Your task to perform on an android device: turn on location history Image 0: 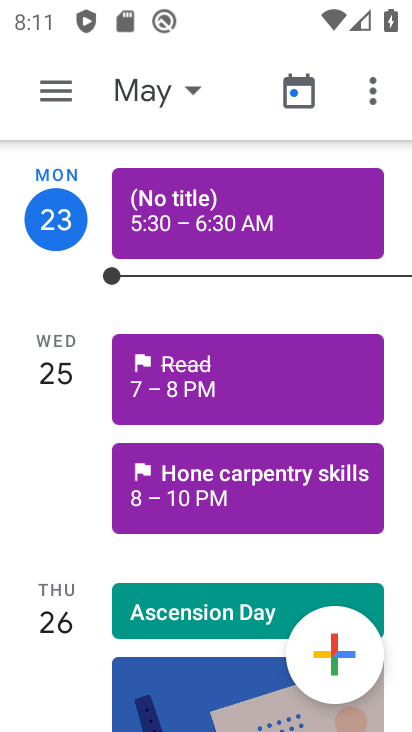
Step 0: press home button
Your task to perform on an android device: turn on location history Image 1: 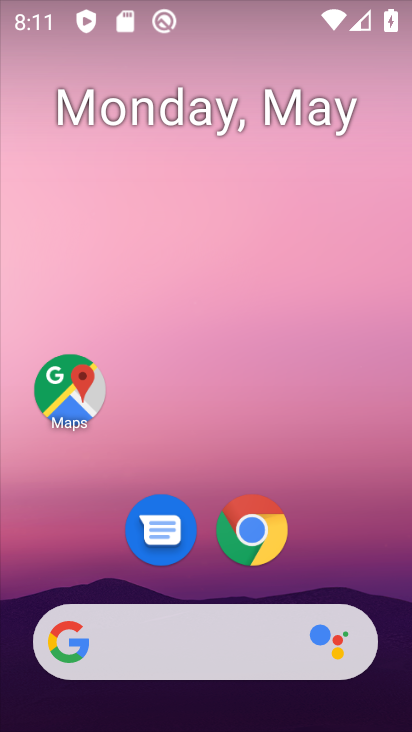
Step 1: click (69, 394)
Your task to perform on an android device: turn on location history Image 2: 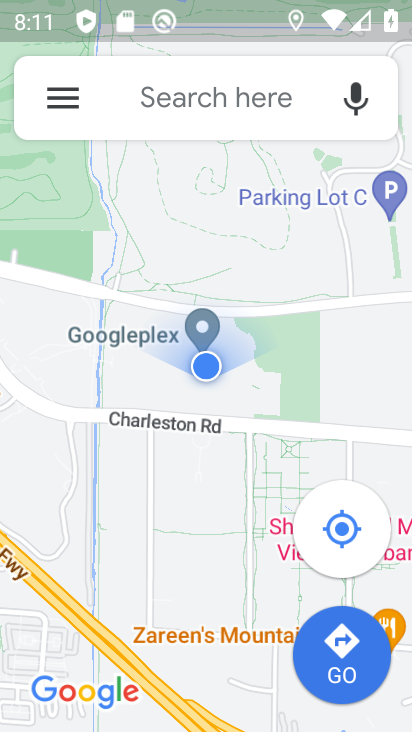
Step 2: click (52, 109)
Your task to perform on an android device: turn on location history Image 3: 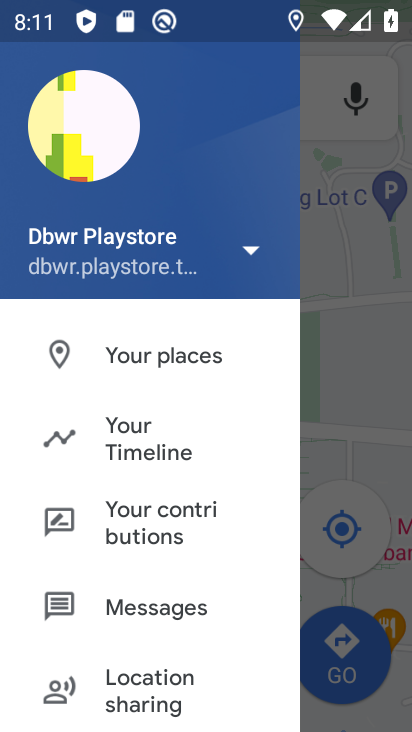
Step 3: click (119, 454)
Your task to perform on an android device: turn on location history Image 4: 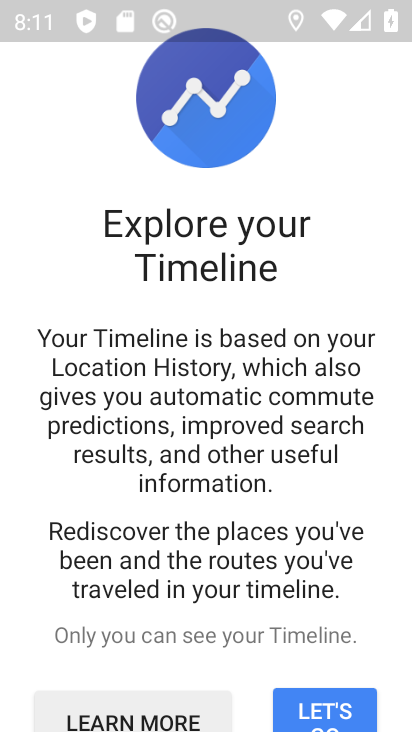
Step 4: click (315, 703)
Your task to perform on an android device: turn on location history Image 5: 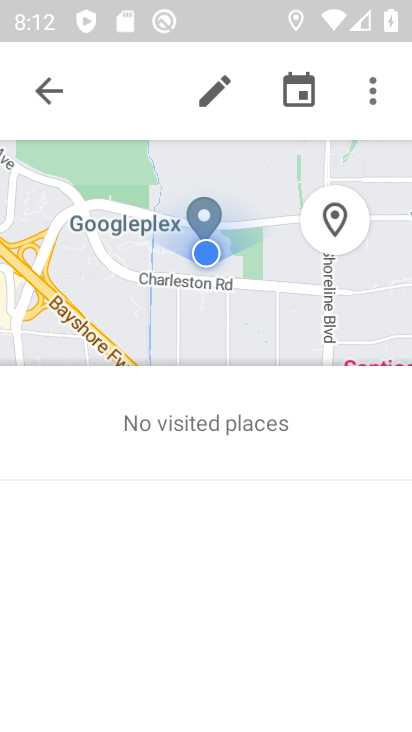
Step 5: click (387, 103)
Your task to perform on an android device: turn on location history Image 6: 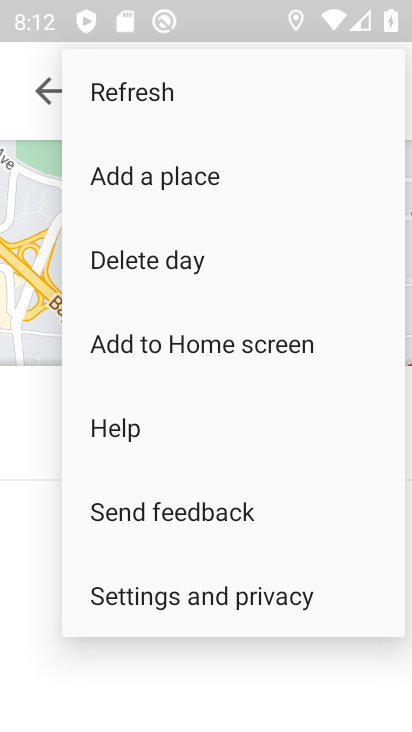
Step 6: click (270, 590)
Your task to perform on an android device: turn on location history Image 7: 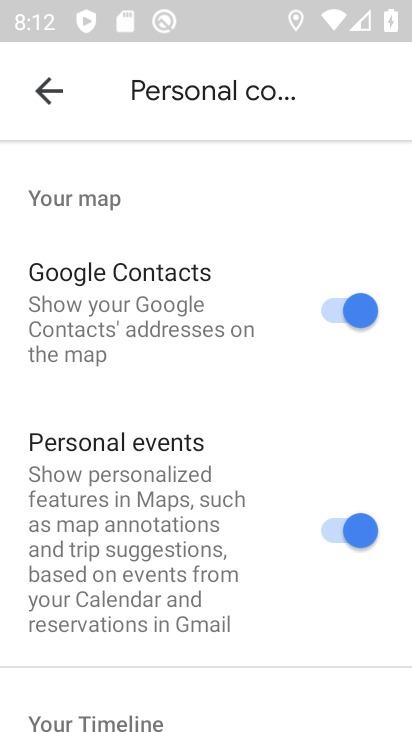
Step 7: drag from (238, 673) to (227, 104)
Your task to perform on an android device: turn on location history Image 8: 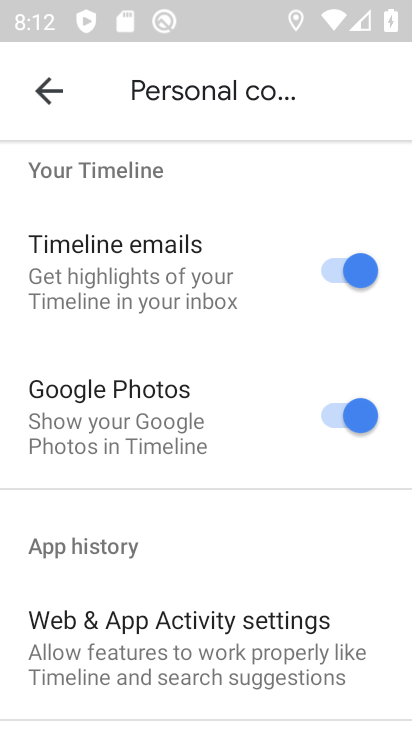
Step 8: drag from (214, 471) to (214, 23)
Your task to perform on an android device: turn on location history Image 9: 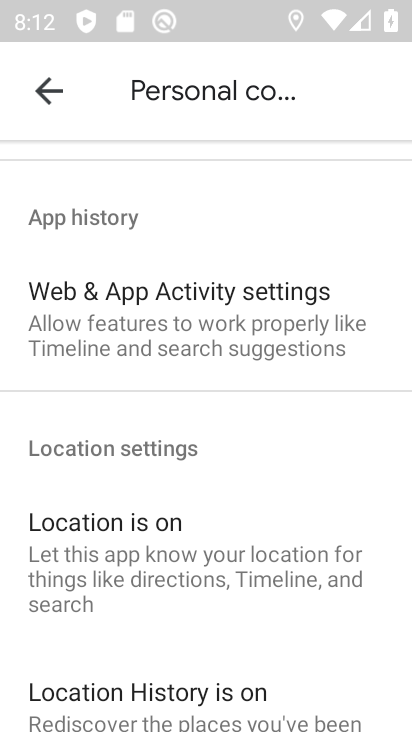
Step 9: drag from (238, 648) to (236, 390)
Your task to perform on an android device: turn on location history Image 10: 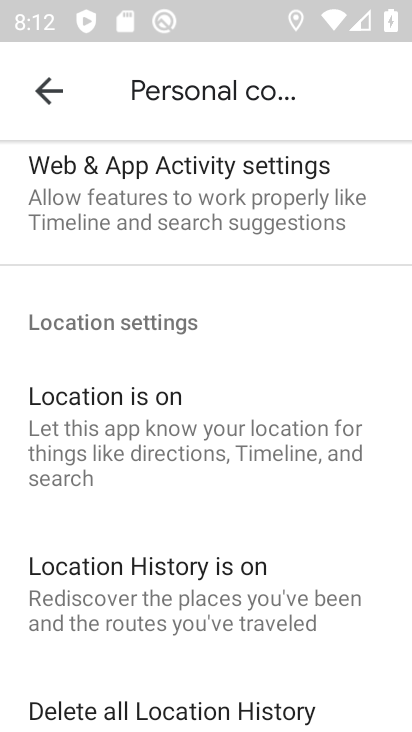
Step 10: click (234, 605)
Your task to perform on an android device: turn on location history Image 11: 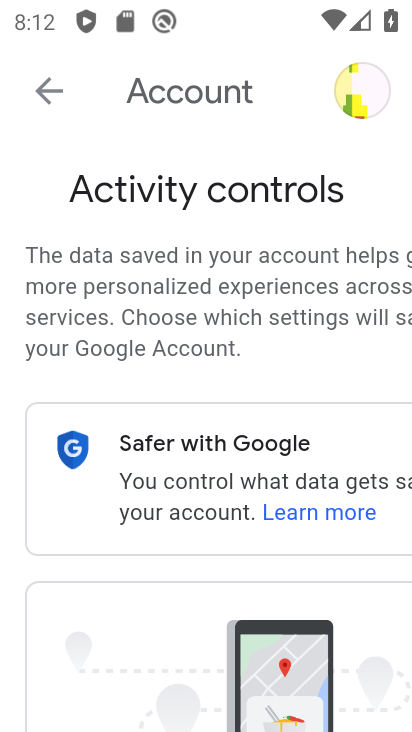
Step 11: task complete